Your task to perform on an android device: add a contact Image 0: 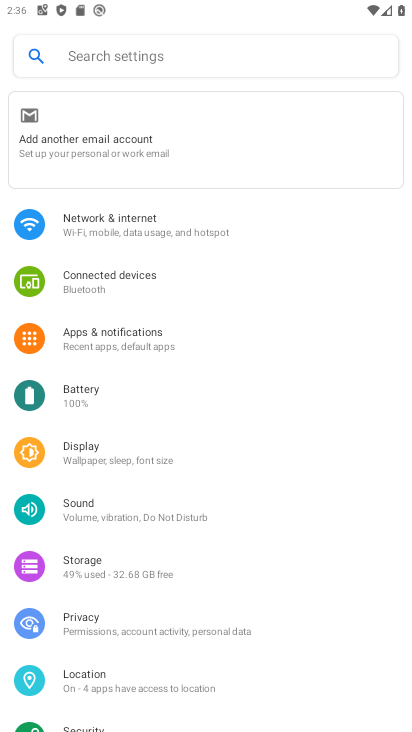
Step 0: press home button
Your task to perform on an android device: add a contact Image 1: 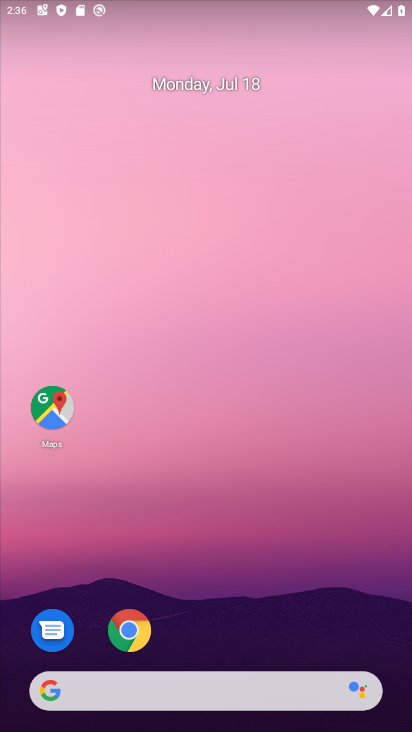
Step 1: drag from (167, 673) to (277, 90)
Your task to perform on an android device: add a contact Image 2: 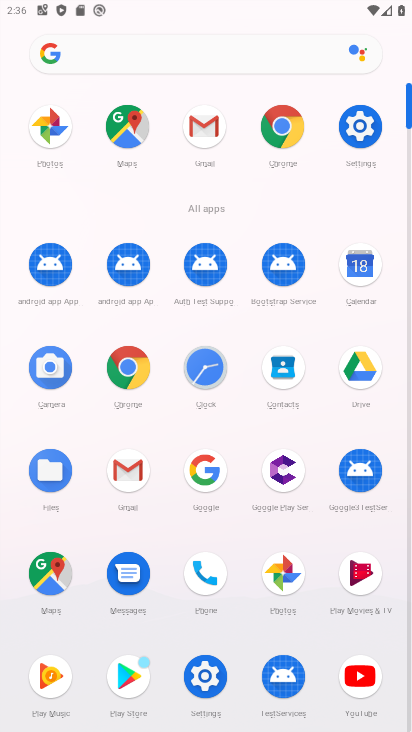
Step 2: click (291, 367)
Your task to perform on an android device: add a contact Image 3: 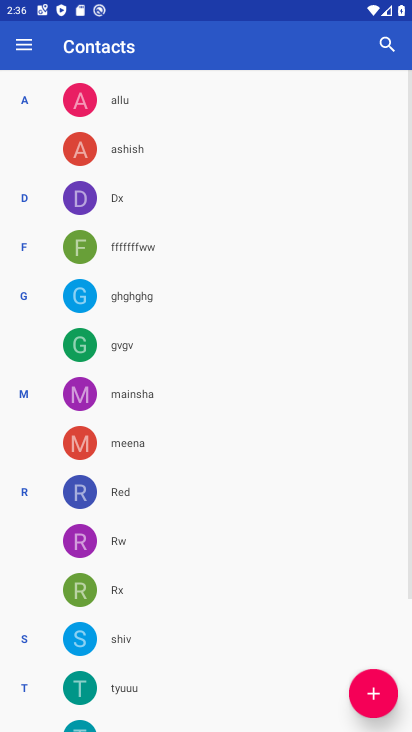
Step 3: click (375, 695)
Your task to perform on an android device: add a contact Image 4: 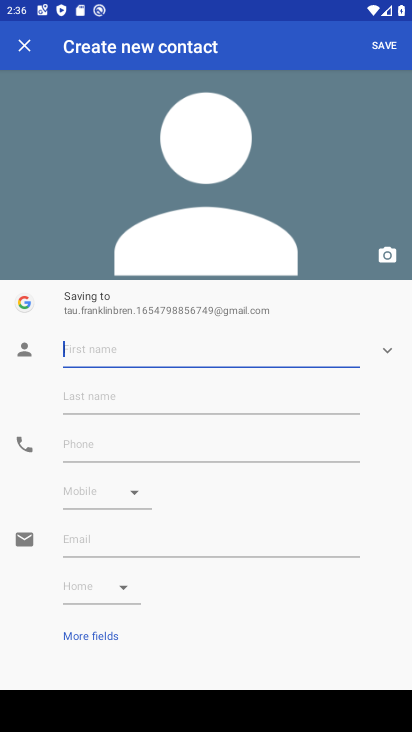
Step 4: type "abba "
Your task to perform on an android device: add a contact Image 5: 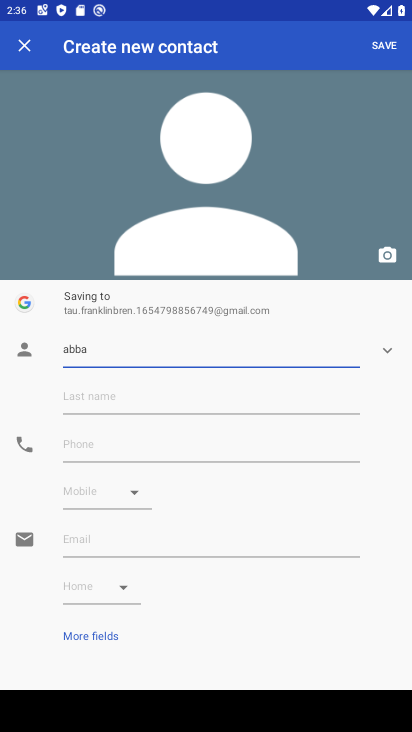
Step 5: click (130, 453)
Your task to perform on an android device: add a contact Image 6: 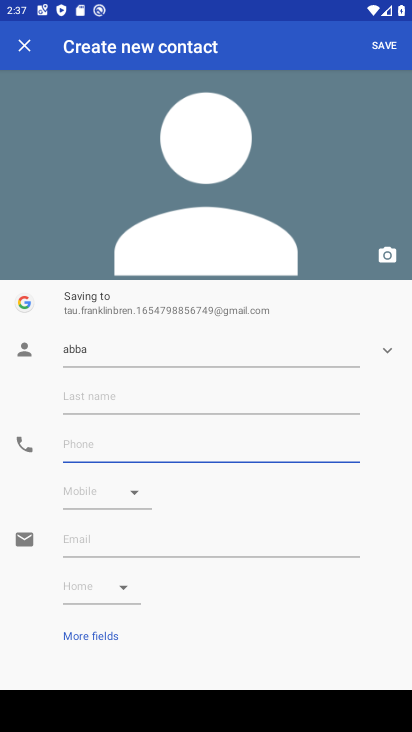
Step 6: type "899899888"
Your task to perform on an android device: add a contact Image 7: 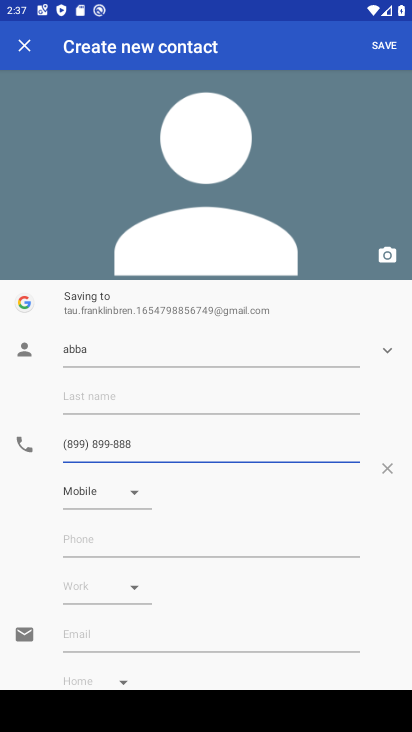
Step 7: click (401, 47)
Your task to perform on an android device: add a contact Image 8: 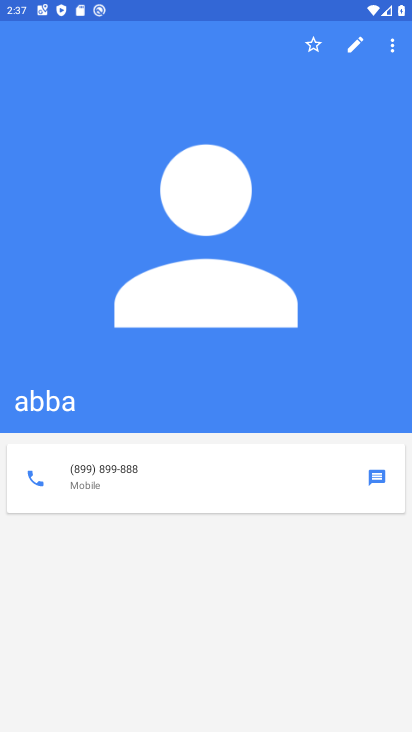
Step 8: task complete